Your task to perform on an android device: Go to wifi settings Image 0: 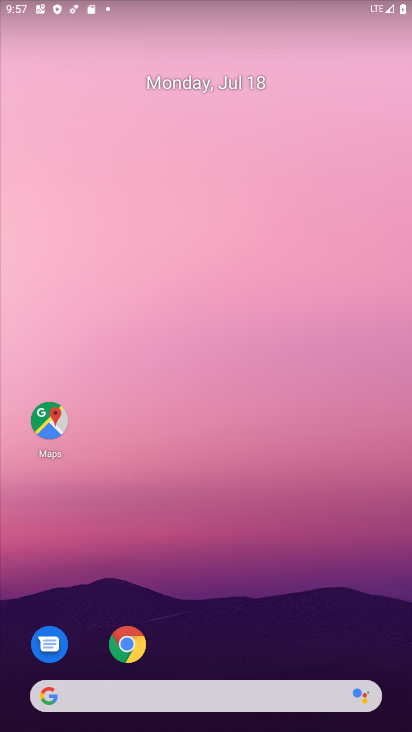
Step 0: drag from (350, 606) to (376, 82)
Your task to perform on an android device: Go to wifi settings Image 1: 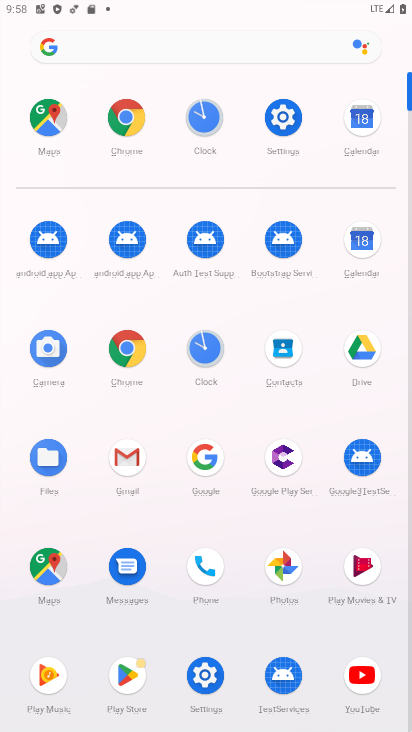
Step 1: click (291, 118)
Your task to perform on an android device: Go to wifi settings Image 2: 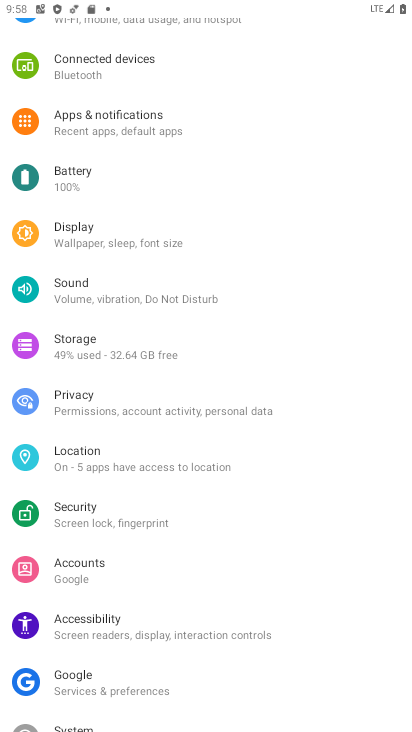
Step 2: drag from (294, 138) to (304, 255)
Your task to perform on an android device: Go to wifi settings Image 3: 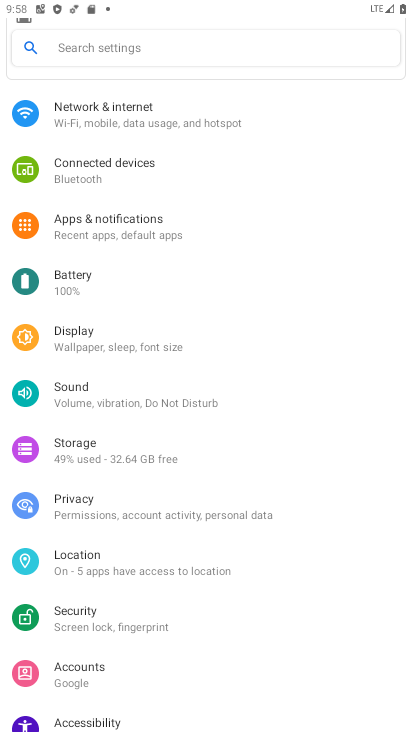
Step 3: drag from (309, 198) to (311, 291)
Your task to perform on an android device: Go to wifi settings Image 4: 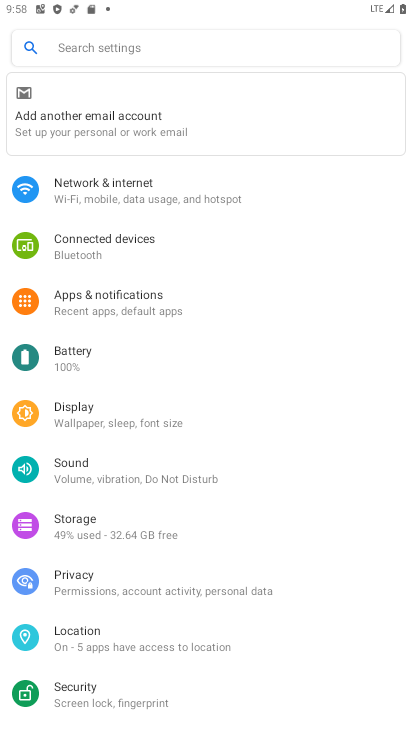
Step 4: drag from (323, 424) to (322, 334)
Your task to perform on an android device: Go to wifi settings Image 5: 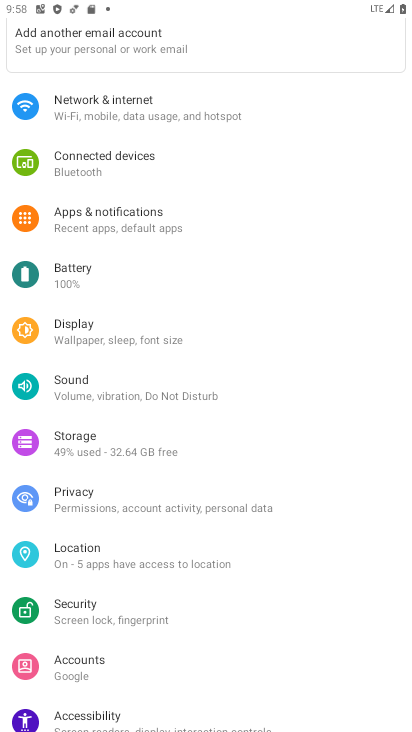
Step 5: drag from (324, 406) to (319, 249)
Your task to perform on an android device: Go to wifi settings Image 6: 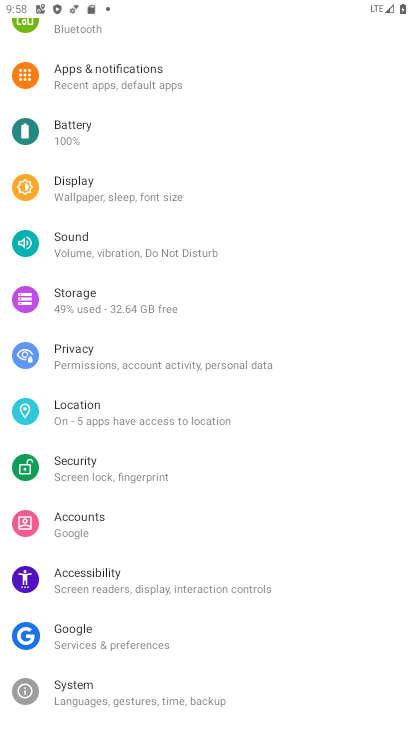
Step 6: drag from (320, 333) to (313, 176)
Your task to perform on an android device: Go to wifi settings Image 7: 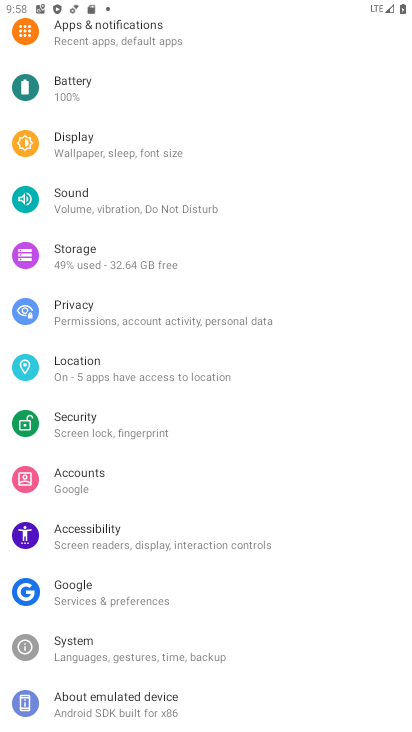
Step 7: drag from (323, 153) to (331, 232)
Your task to perform on an android device: Go to wifi settings Image 8: 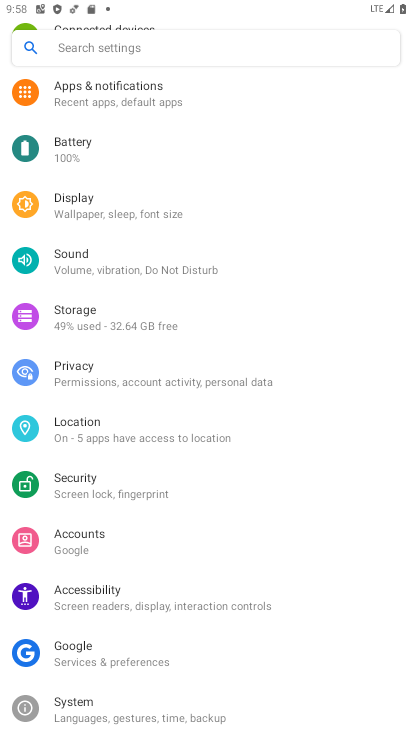
Step 8: drag from (325, 132) to (325, 221)
Your task to perform on an android device: Go to wifi settings Image 9: 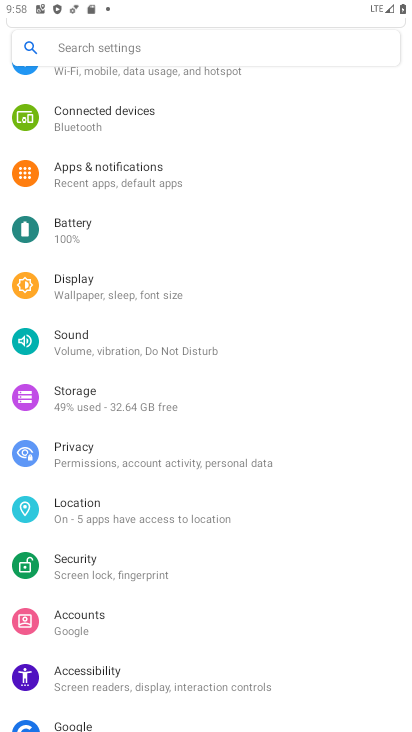
Step 9: drag from (322, 197) to (328, 286)
Your task to perform on an android device: Go to wifi settings Image 10: 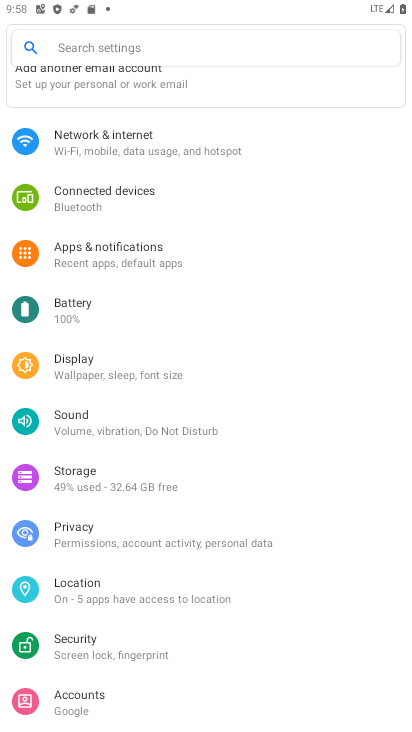
Step 10: click (257, 152)
Your task to perform on an android device: Go to wifi settings Image 11: 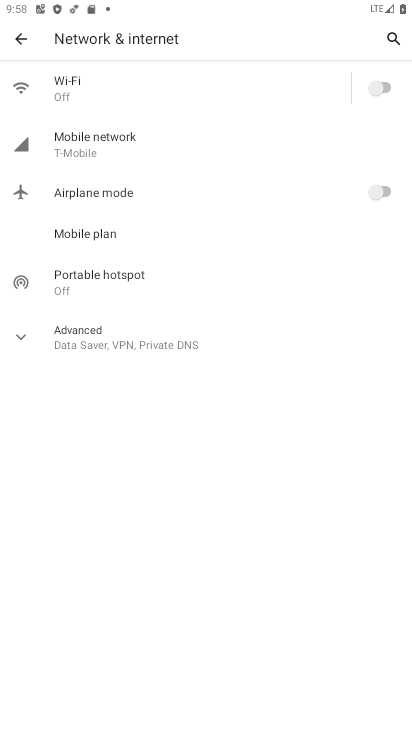
Step 11: click (129, 86)
Your task to perform on an android device: Go to wifi settings Image 12: 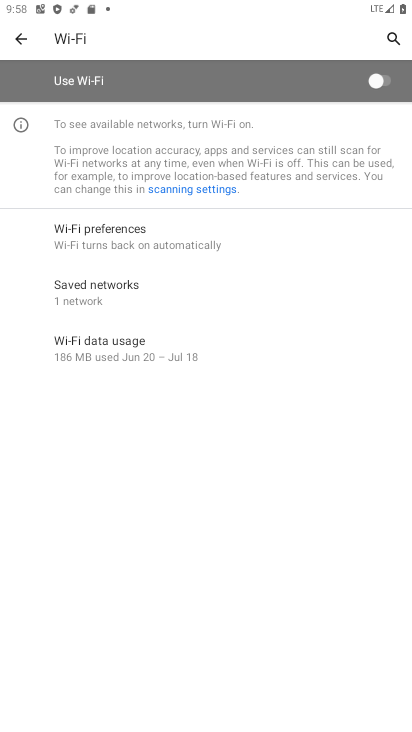
Step 12: task complete